Your task to perform on an android device: Open notification settings Image 0: 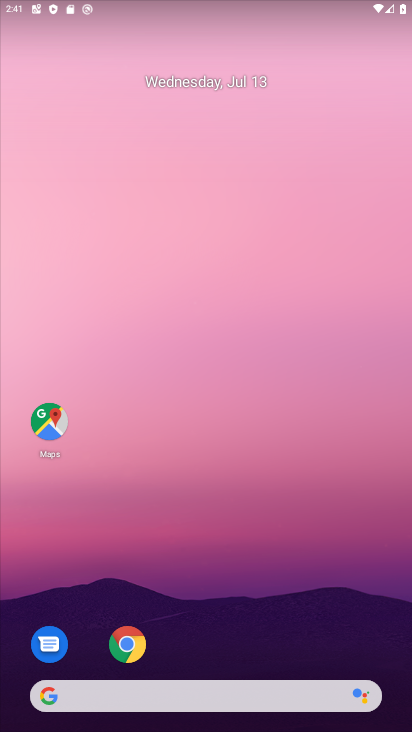
Step 0: drag from (251, 609) to (208, 82)
Your task to perform on an android device: Open notification settings Image 1: 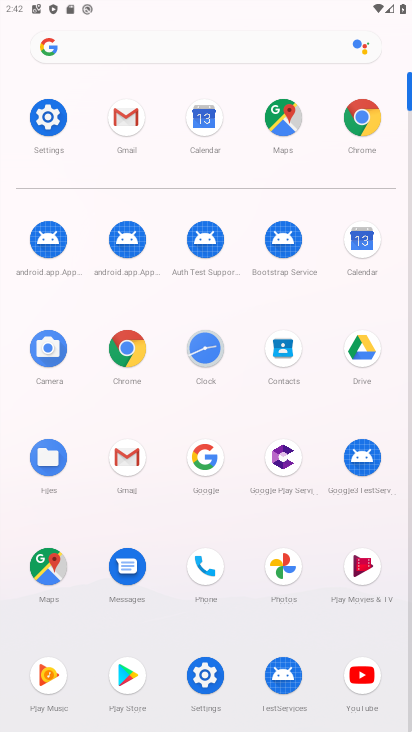
Step 1: click (46, 116)
Your task to perform on an android device: Open notification settings Image 2: 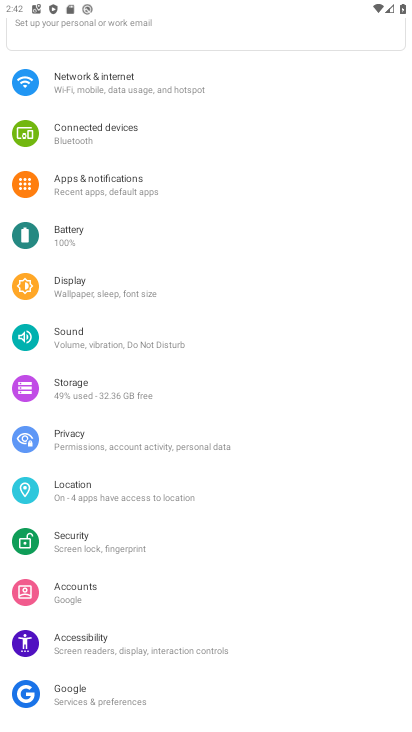
Step 2: click (130, 174)
Your task to perform on an android device: Open notification settings Image 3: 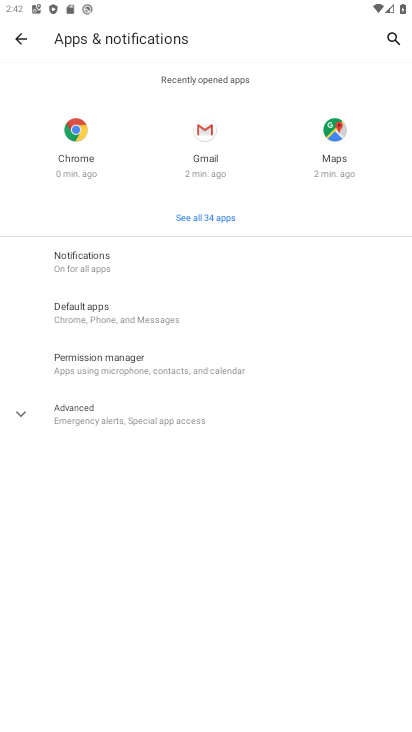
Step 3: click (190, 265)
Your task to perform on an android device: Open notification settings Image 4: 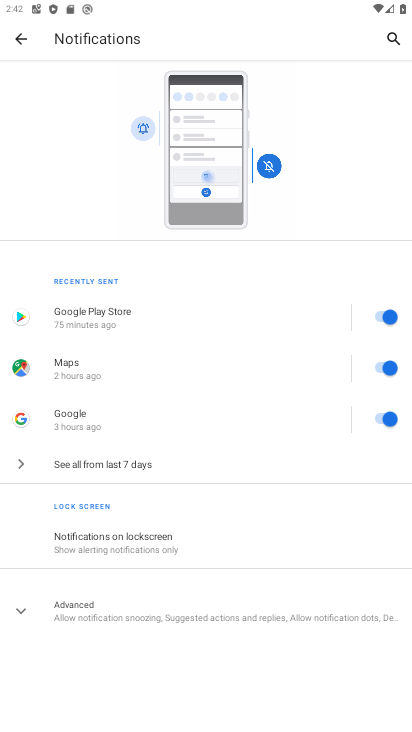
Step 4: task complete